Your task to perform on an android device: change the clock display to digital Image 0: 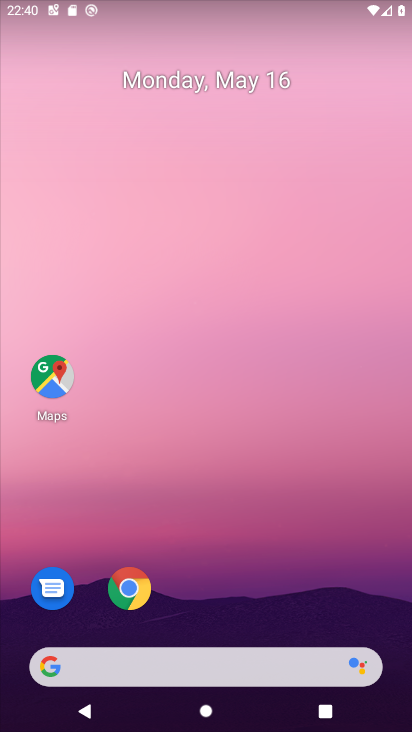
Step 0: drag from (210, 632) to (253, 35)
Your task to perform on an android device: change the clock display to digital Image 1: 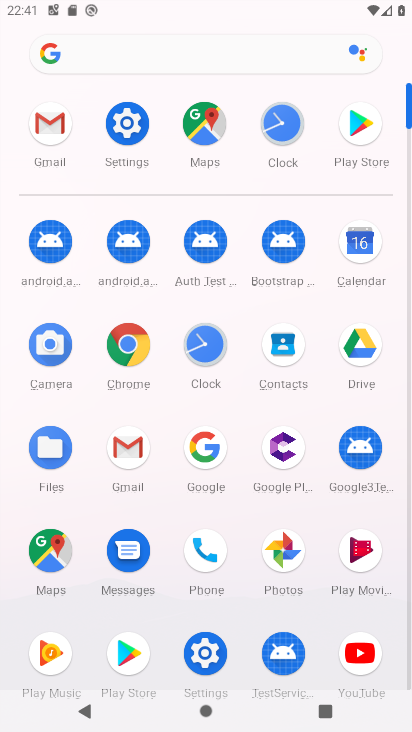
Step 1: click (204, 339)
Your task to perform on an android device: change the clock display to digital Image 2: 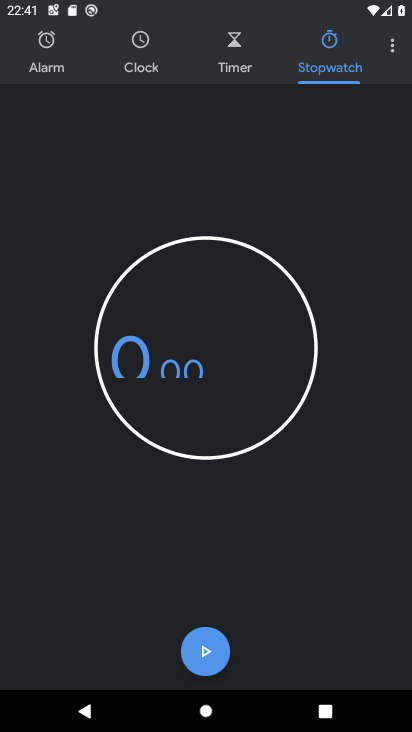
Step 2: click (391, 47)
Your task to perform on an android device: change the clock display to digital Image 3: 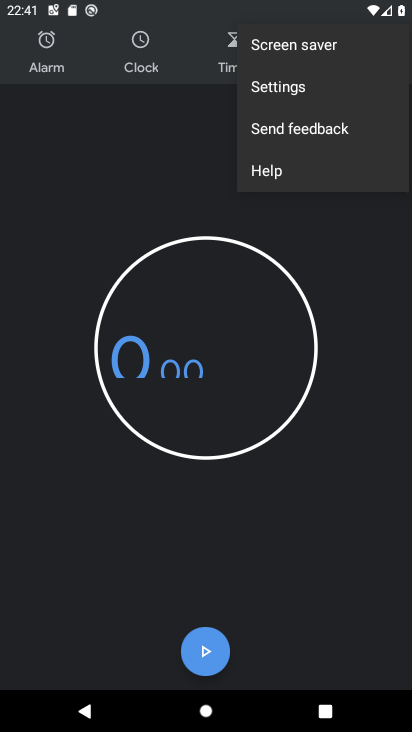
Step 3: click (308, 82)
Your task to perform on an android device: change the clock display to digital Image 4: 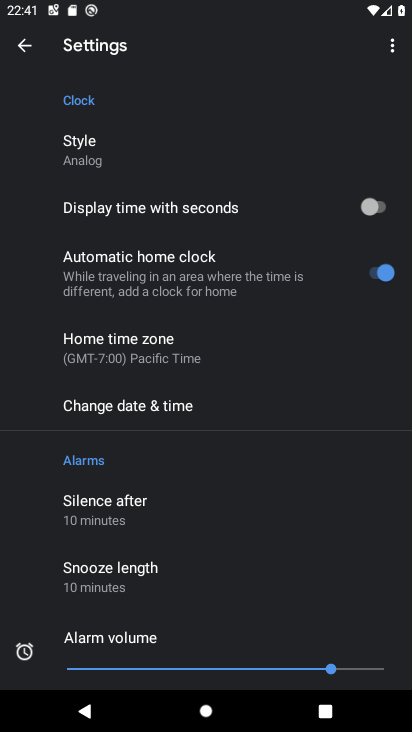
Step 4: click (119, 145)
Your task to perform on an android device: change the clock display to digital Image 5: 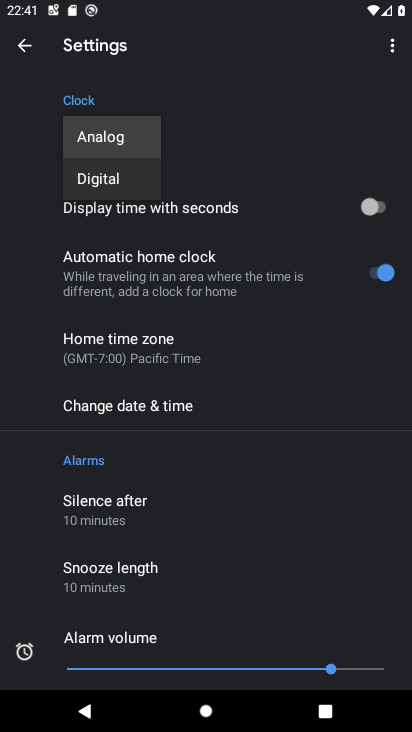
Step 5: click (127, 184)
Your task to perform on an android device: change the clock display to digital Image 6: 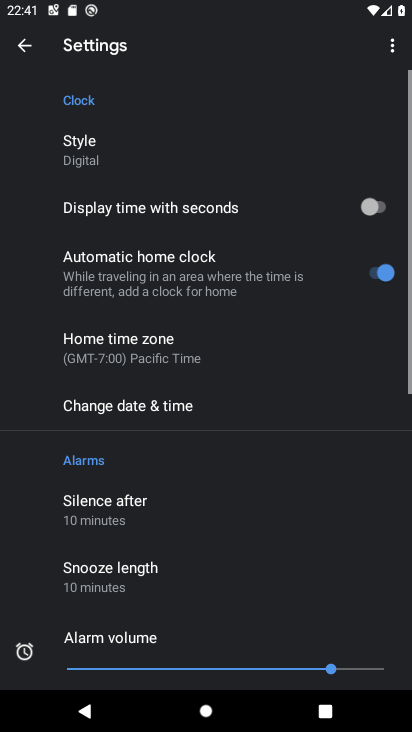
Step 6: task complete